Your task to perform on an android device: Set the phone to "Do not disturb". Image 0: 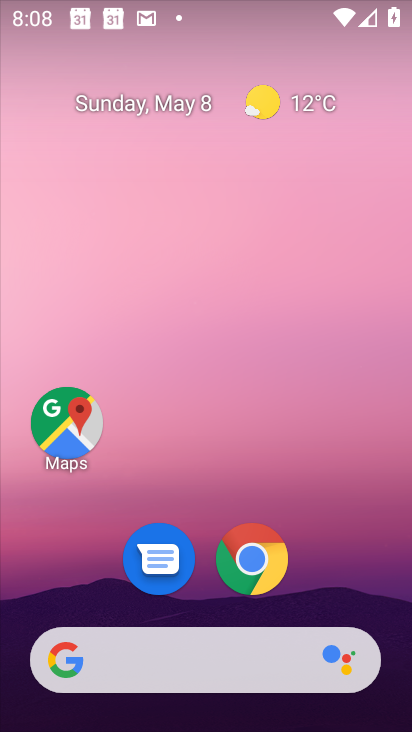
Step 0: drag from (366, 604) to (333, 3)
Your task to perform on an android device: Set the phone to "Do not disturb". Image 1: 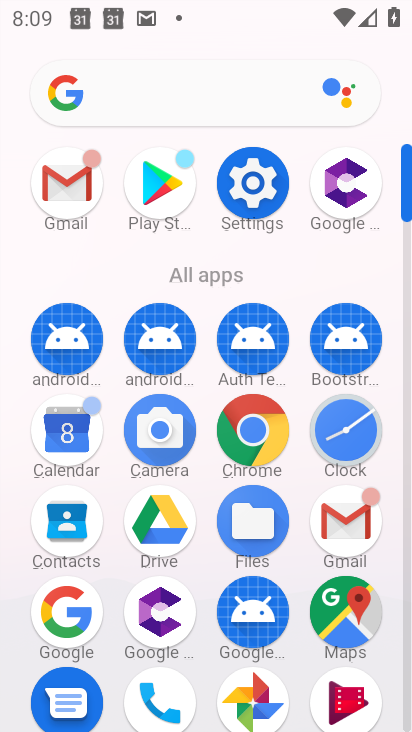
Step 1: click (257, 185)
Your task to perform on an android device: Set the phone to "Do not disturb". Image 2: 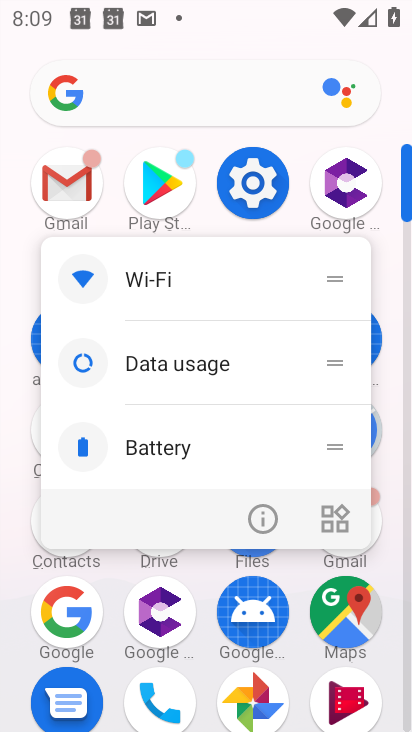
Step 2: click (257, 185)
Your task to perform on an android device: Set the phone to "Do not disturb". Image 3: 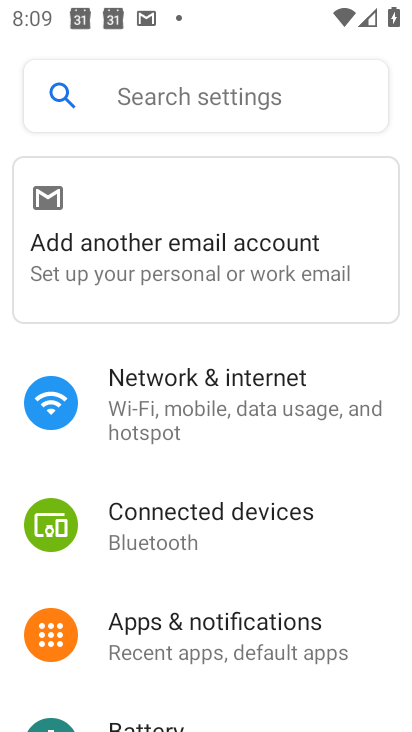
Step 3: drag from (391, 638) to (360, 61)
Your task to perform on an android device: Set the phone to "Do not disturb". Image 4: 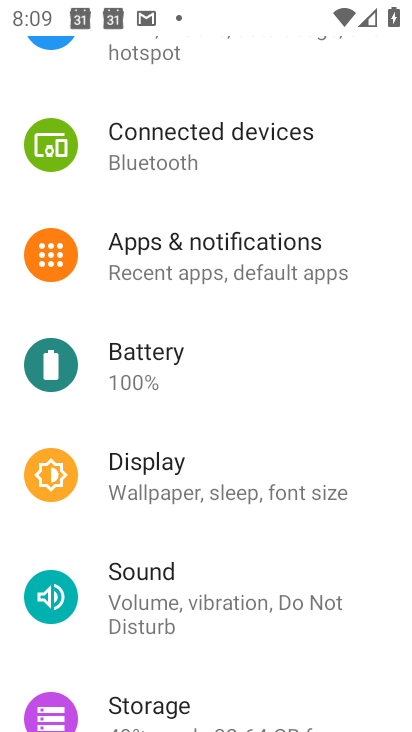
Step 4: click (146, 602)
Your task to perform on an android device: Set the phone to "Do not disturb". Image 5: 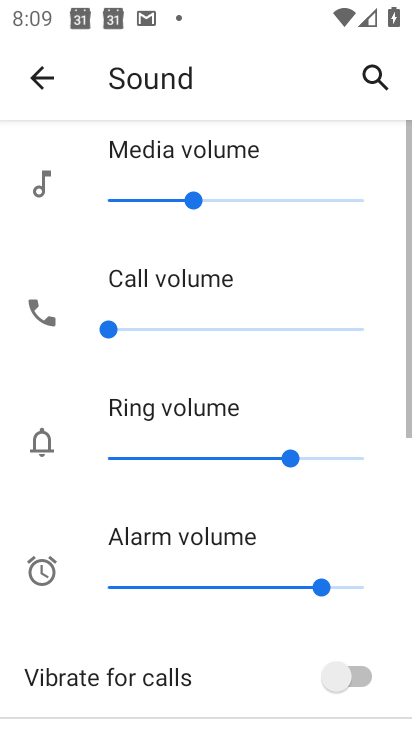
Step 5: drag from (286, 633) to (237, 119)
Your task to perform on an android device: Set the phone to "Do not disturb". Image 6: 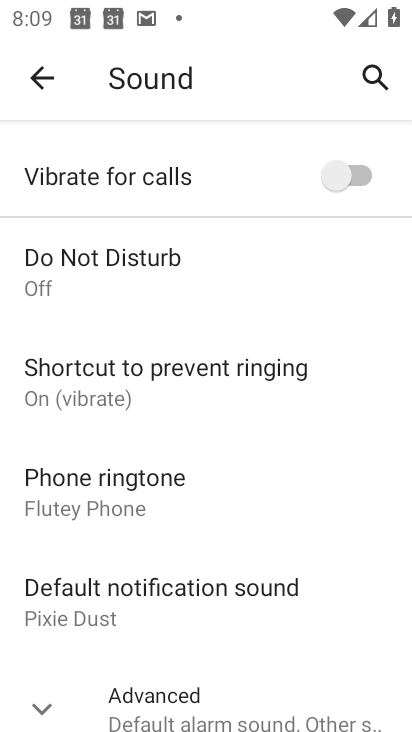
Step 6: drag from (237, 669) to (223, 156)
Your task to perform on an android device: Set the phone to "Do not disturb". Image 7: 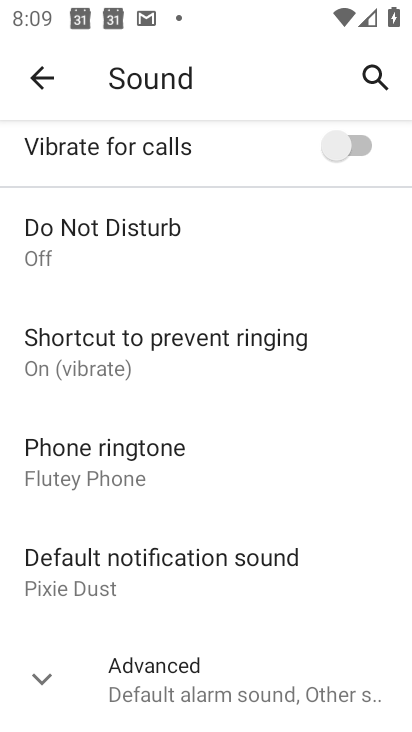
Step 7: click (70, 256)
Your task to perform on an android device: Set the phone to "Do not disturb". Image 8: 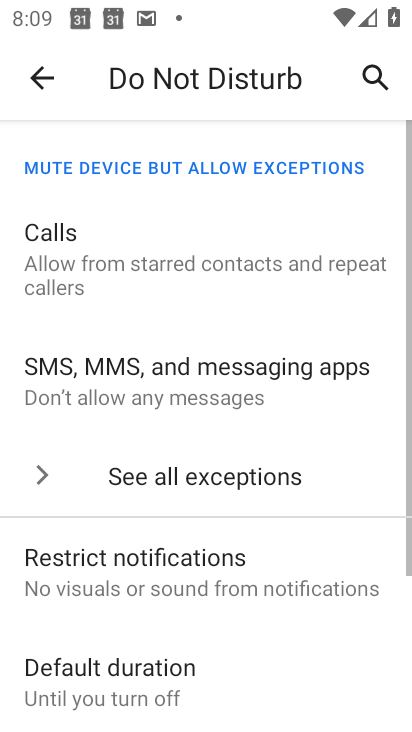
Step 8: drag from (285, 561) to (261, 54)
Your task to perform on an android device: Set the phone to "Do not disturb". Image 9: 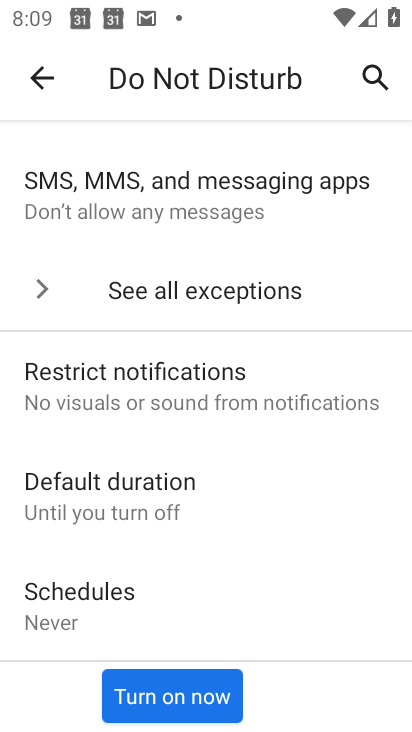
Step 9: click (182, 699)
Your task to perform on an android device: Set the phone to "Do not disturb". Image 10: 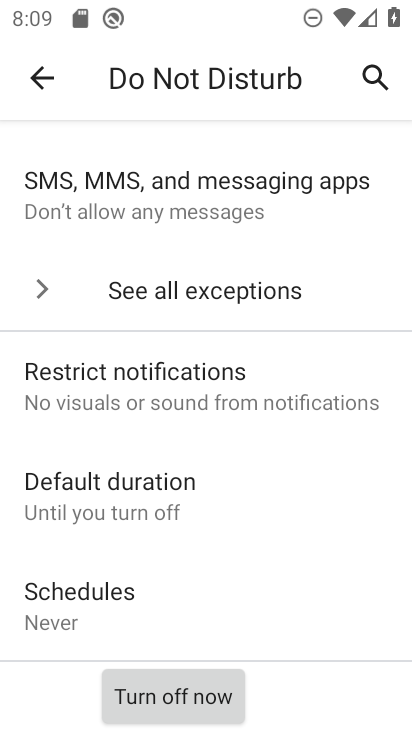
Step 10: task complete